Your task to perform on an android device: find photos in the google photos app Image 0: 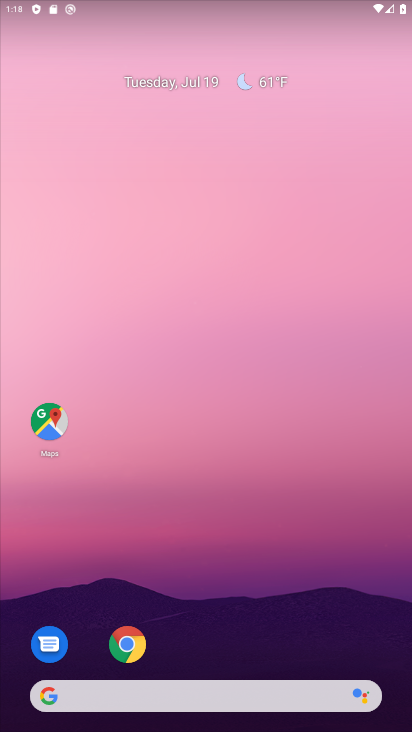
Step 0: drag from (402, 695) to (321, 23)
Your task to perform on an android device: find photos in the google photos app Image 1: 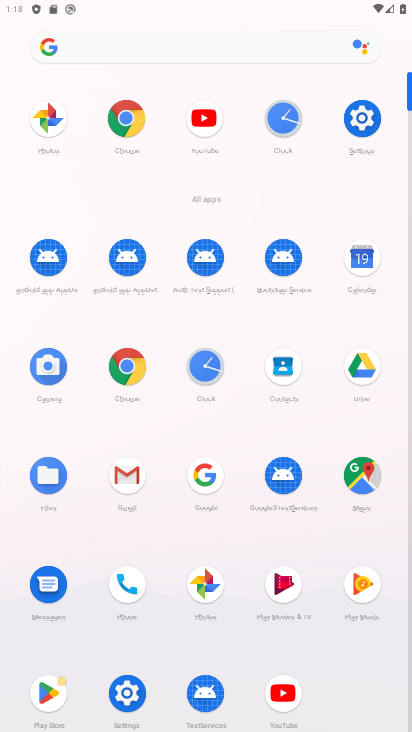
Step 1: click (201, 592)
Your task to perform on an android device: find photos in the google photos app Image 2: 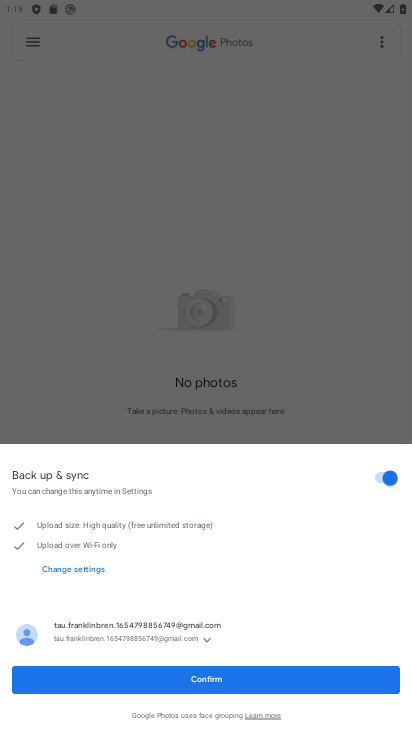
Step 2: click (273, 687)
Your task to perform on an android device: find photos in the google photos app Image 3: 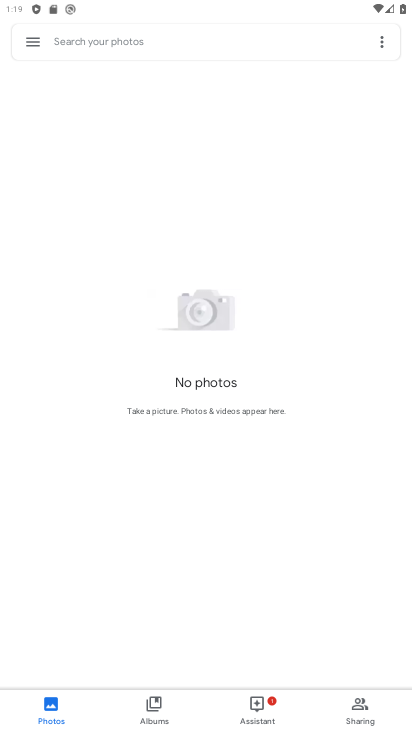
Step 3: task complete